Your task to perform on an android device: View the shopping cart on bestbuy.com. Add bose soundlink to the cart on bestbuy.com Image 0: 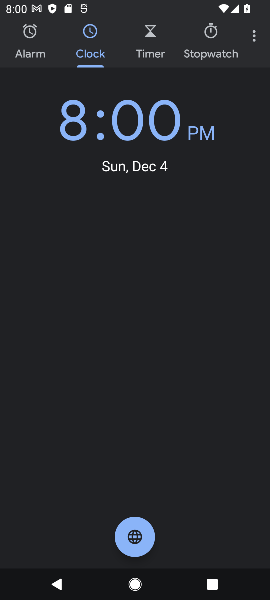
Step 0: press home button
Your task to perform on an android device: View the shopping cart on bestbuy.com. Add bose soundlink to the cart on bestbuy.com Image 1: 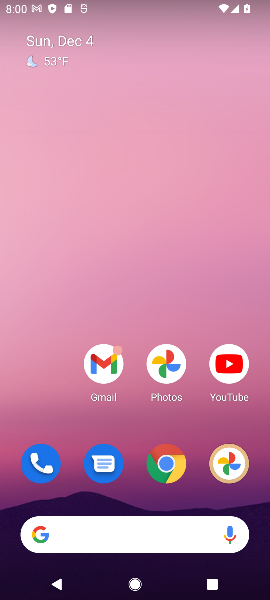
Step 1: click (150, 538)
Your task to perform on an android device: View the shopping cart on bestbuy.com. Add bose soundlink to the cart on bestbuy.com Image 2: 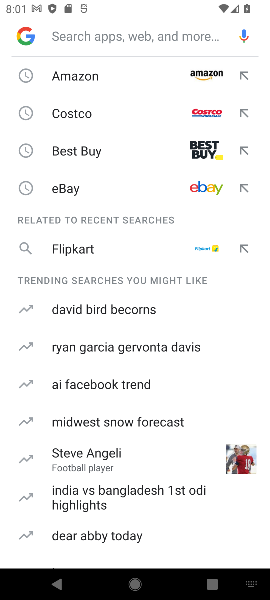
Step 2: click (118, 154)
Your task to perform on an android device: View the shopping cart on bestbuy.com. Add bose soundlink to the cart on bestbuy.com Image 3: 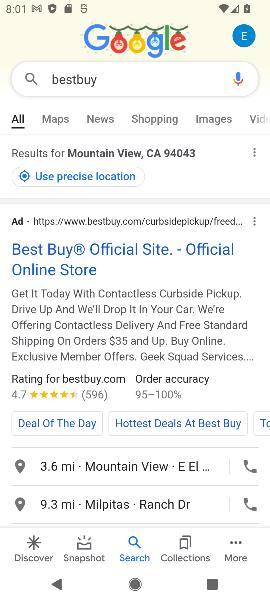
Step 3: click (80, 245)
Your task to perform on an android device: View the shopping cart on bestbuy.com. Add bose soundlink to the cart on bestbuy.com Image 4: 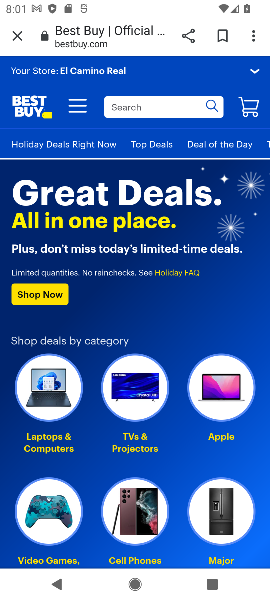
Step 4: click (165, 110)
Your task to perform on an android device: View the shopping cart on bestbuy.com. Add bose soundlink to the cart on bestbuy.com Image 5: 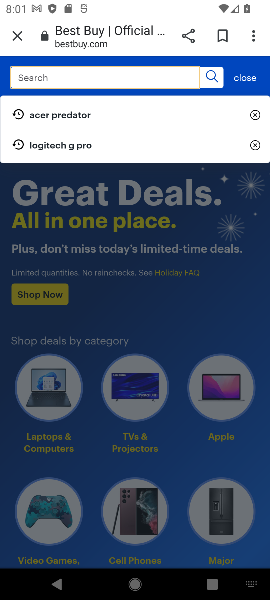
Step 5: type "bose soundlink"
Your task to perform on an android device: View the shopping cart on bestbuy.com. Add bose soundlink to the cart on bestbuy.com Image 6: 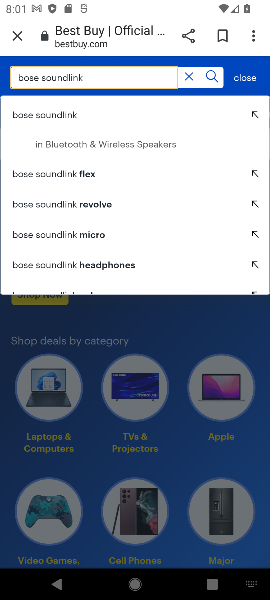
Step 6: click (60, 114)
Your task to perform on an android device: View the shopping cart on bestbuy.com. Add bose soundlink to the cart on bestbuy.com Image 7: 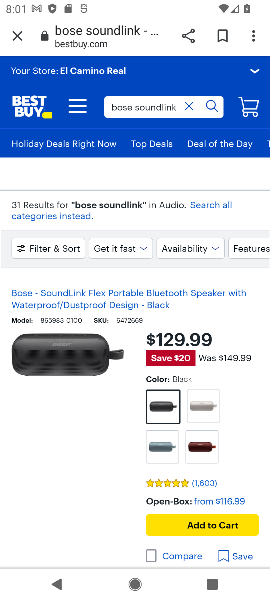
Step 7: task complete